Your task to perform on an android device: Go to settings Image 0: 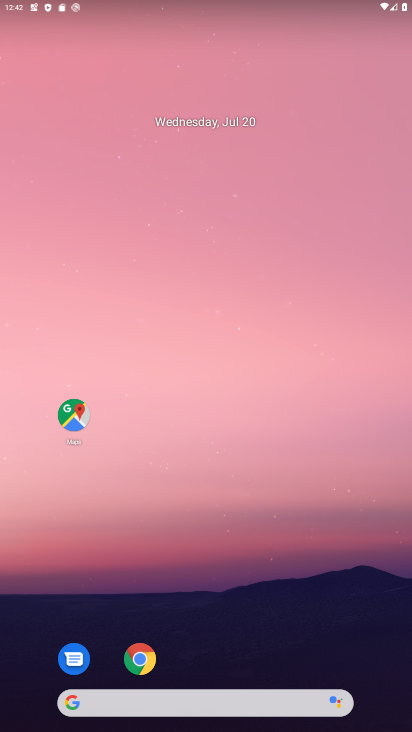
Step 0: drag from (260, 596) to (174, 116)
Your task to perform on an android device: Go to settings Image 1: 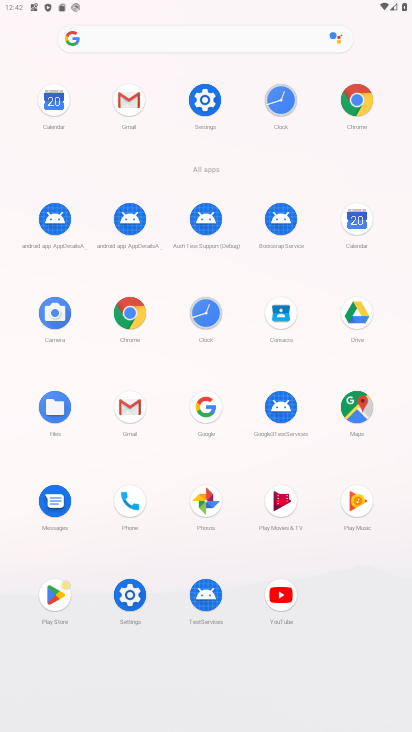
Step 1: click (133, 590)
Your task to perform on an android device: Go to settings Image 2: 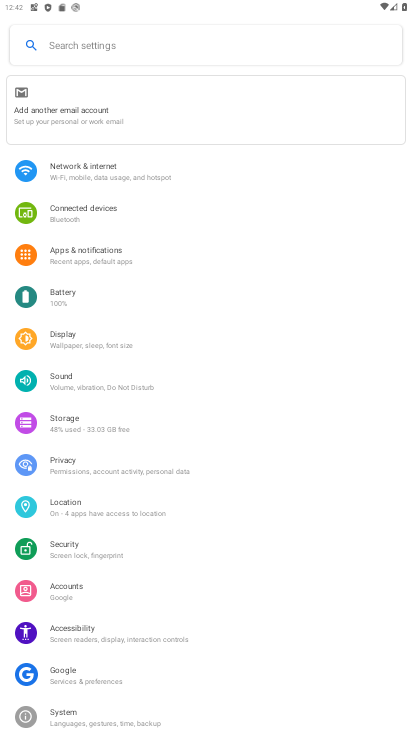
Step 2: task complete